Your task to perform on an android device: Turn on the flashlight Image 0: 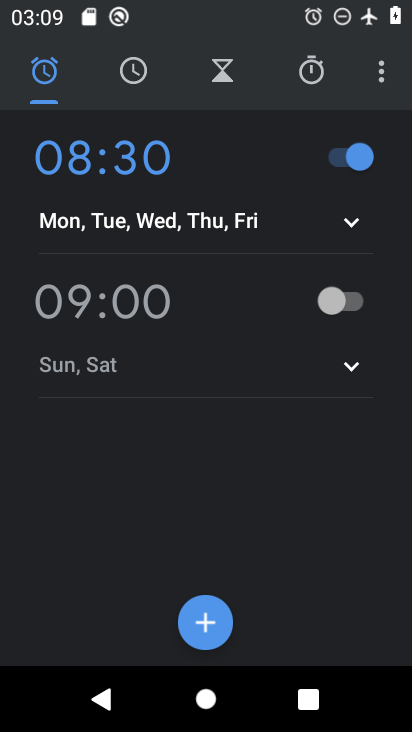
Step 0: press home button
Your task to perform on an android device: Turn on the flashlight Image 1: 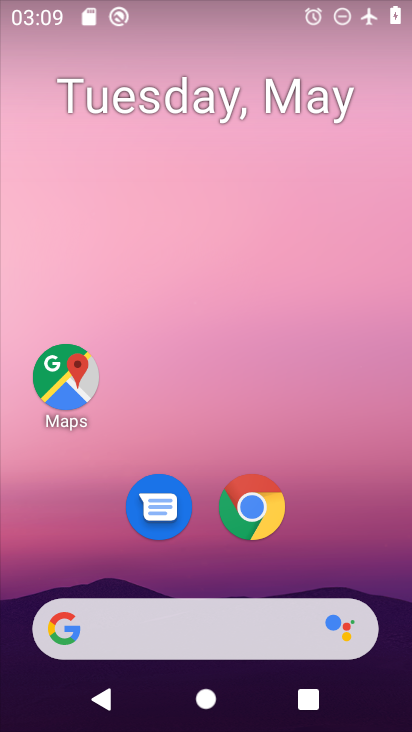
Step 1: drag from (216, 561) to (197, 187)
Your task to perform on an android device: Turn on the flashlight Image 2: 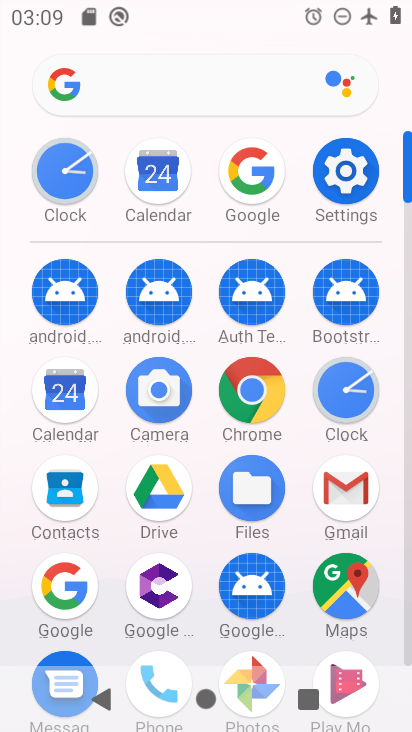
Step 2: click (326, 168)
Your task to perform on an android device: Turn on the flashlight Image 3: 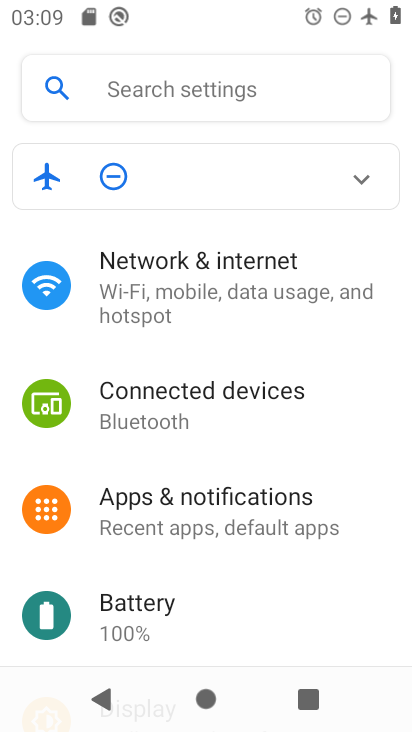
Step 3: drag from (202, 588) to (207, 335)
Your task to perform on an android device: Turn on the flashlight Image 4: 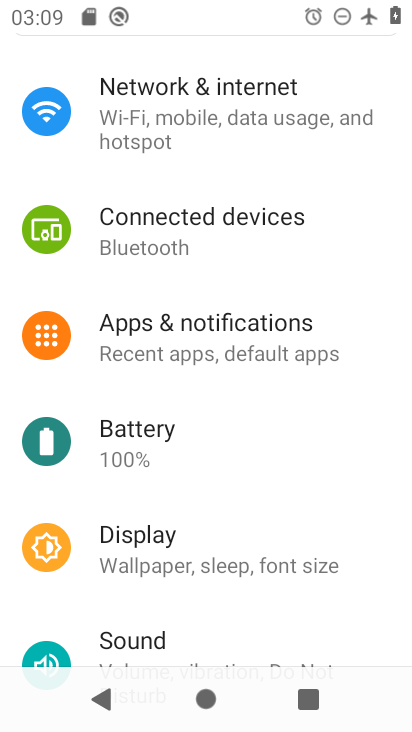
Step 4: drag from (282, 179) to (303, 434)
Your task to perform on an android device: Turn on the flashlight Image 5: 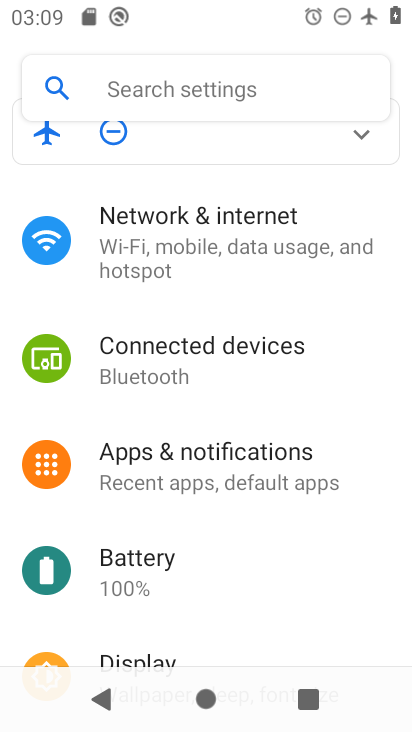
Step 5: click (226, 279)
Your task to perform on an android device: Turn on the flashlight Image 6: 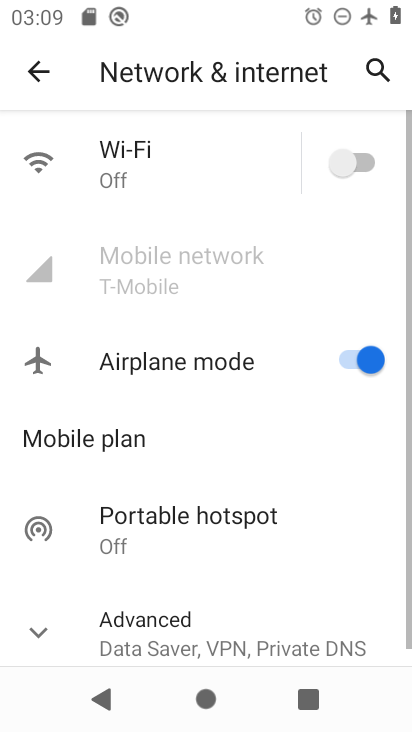
Step 6: task complete